Your task to perform on an android device: Open Android settings Image 0: 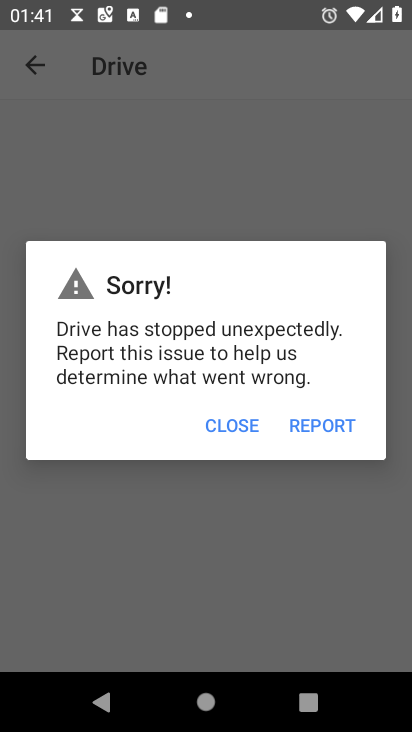
Step 0: press home button
Your task to perform on an android device: Open Android settings Image 1: 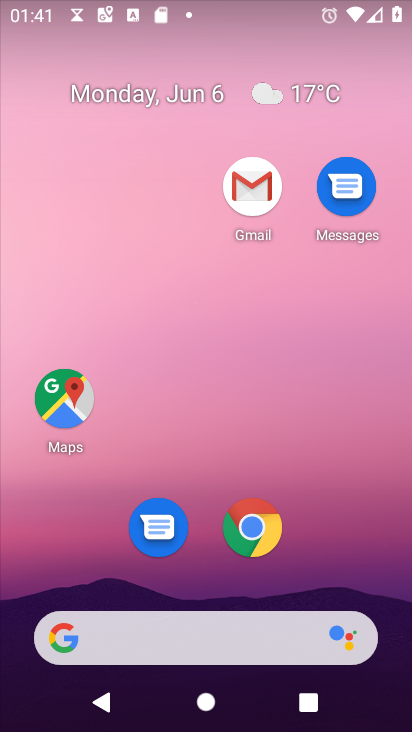
Step 1: drag from (287, 378) to (244, 153)
Your task to perform on an android device: Open Android settings Image 2: 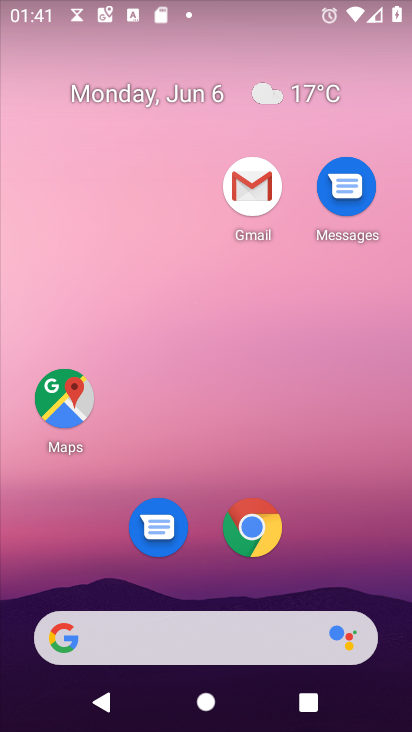
Step 2: drag from (215, 478) to (0, 2)
Your task to perform on an android device: Open Android settings Image 3: 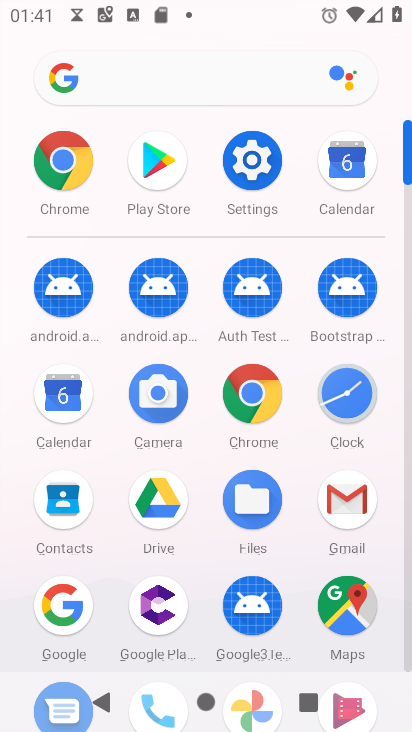
Step 3: drag from (203, 589) to (97, 55)
Your task to perform on an android device: Open Android settings Image 4: 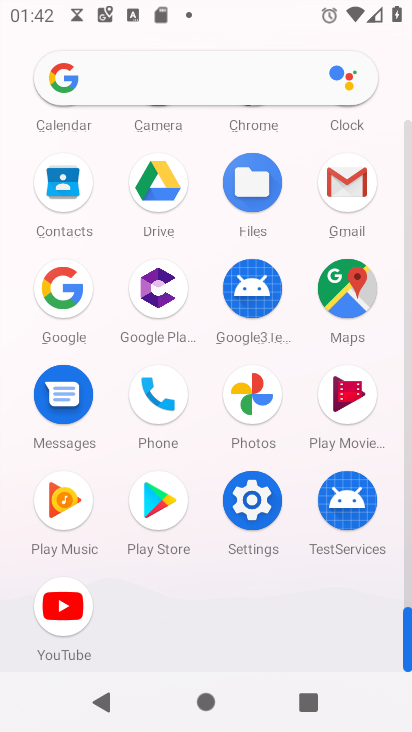
Step 4: click (237, 506)
Your task to perform on an android device: Open Android settings Image 5: 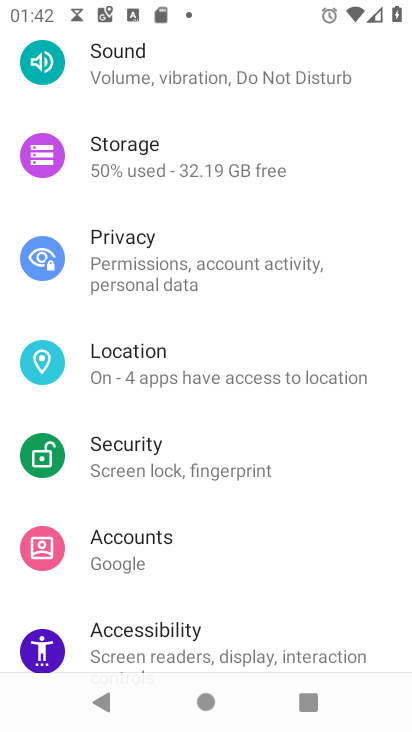
Step 5: drag from (109, 599) to (177, 146)
Your task to perform on an android device: Open Android settings Image 6: 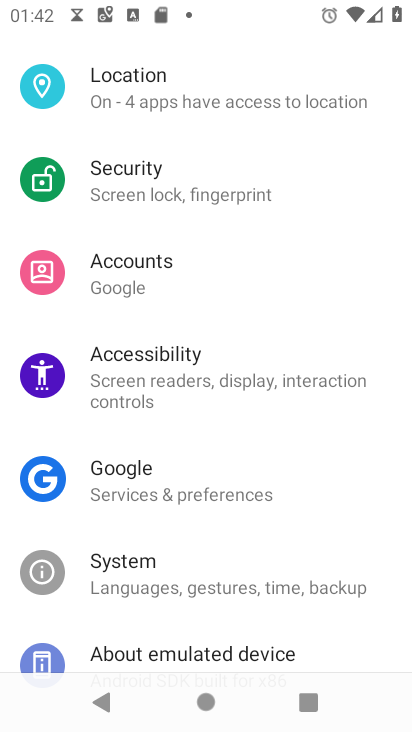
Step 6: drag from (247, 621) to (224, 51)
Your task to perform on an android device: Open Android settings Image 7: 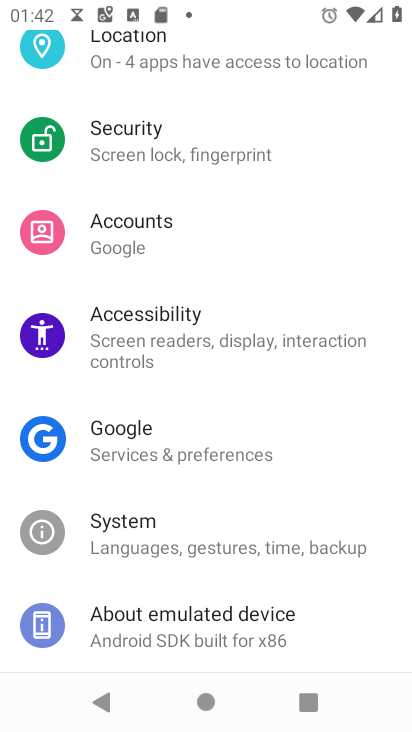
Step 7: click (177, 625)
Your task to perform on an android device: Open Android settings Image 8: 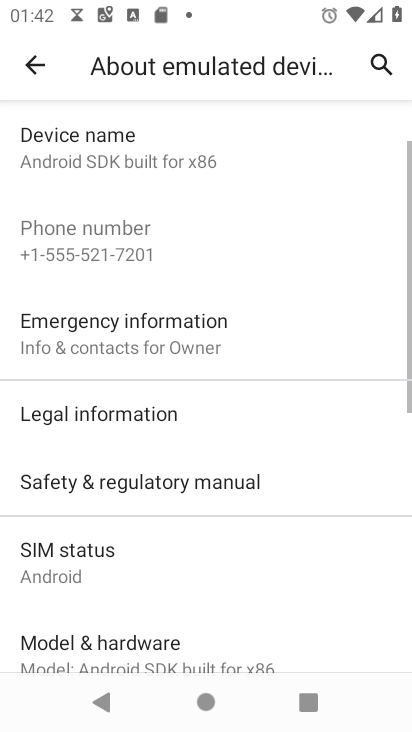
Step 8: click (34, 53)
Your task to perform on an android device: Open Android settings Image 9: 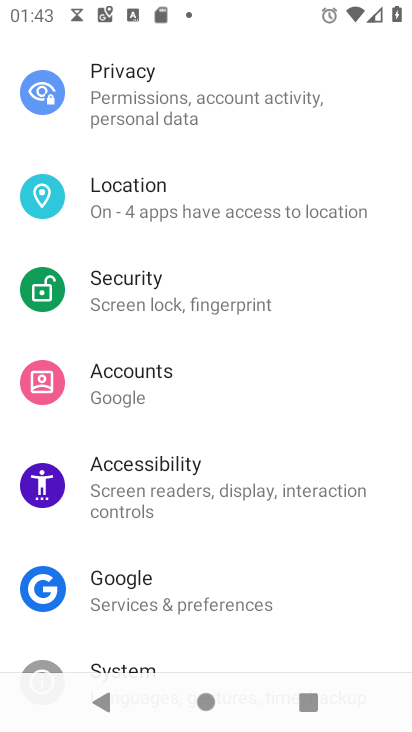
Step 9: task complete